Your task to perform on an android device: change the clock display to digital Image 0: 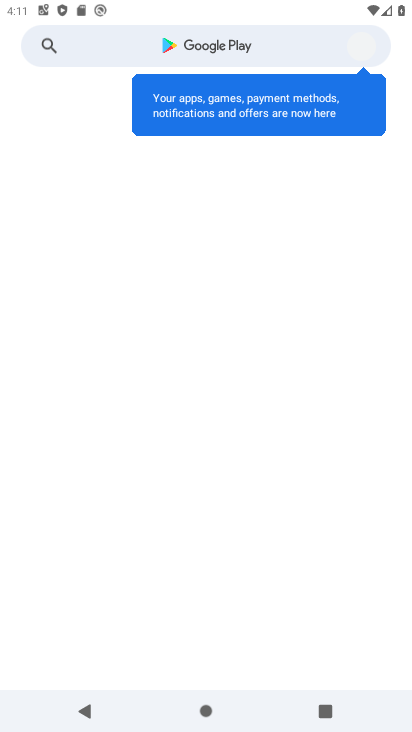
Step 0: press home button
Your task to perform on an android device: change the clock display to digital Image 1: 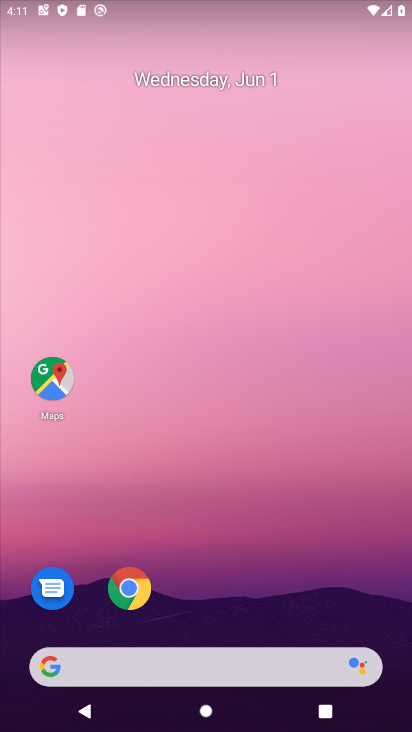
Step 1: drag from (246, 623) to (151, 214)
Your task to perform on an android device: change the clock display to digital Image 2: 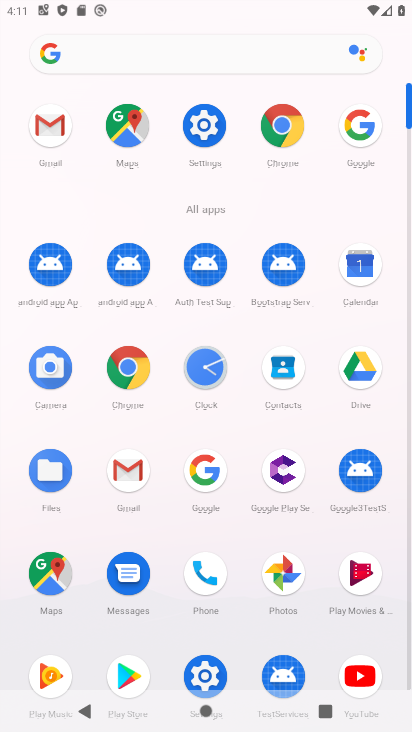
Step 2: click (199, 372)
Your task to perform on an android device: change the clock display to digital Image 3: 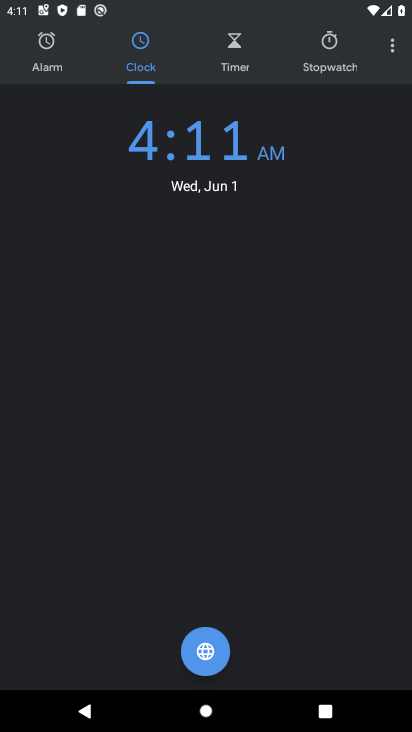
Step 3: click (387, 49)
Your task to perform on an android device: change the clock display to digital Image 4: 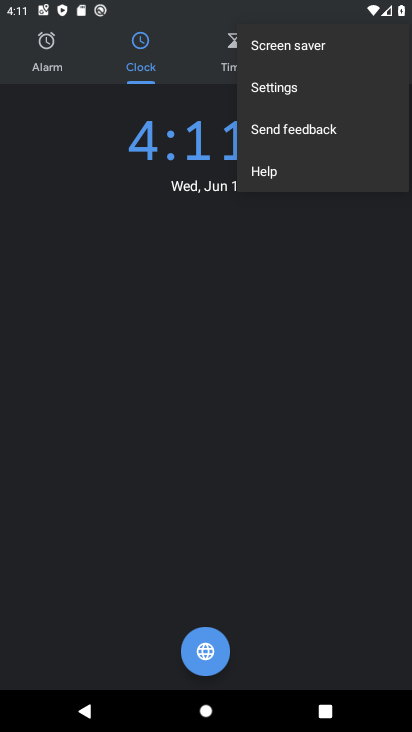
Step 4: click (333, 83)
Your task to perform on an android device: change the clock display to digital Image 5: 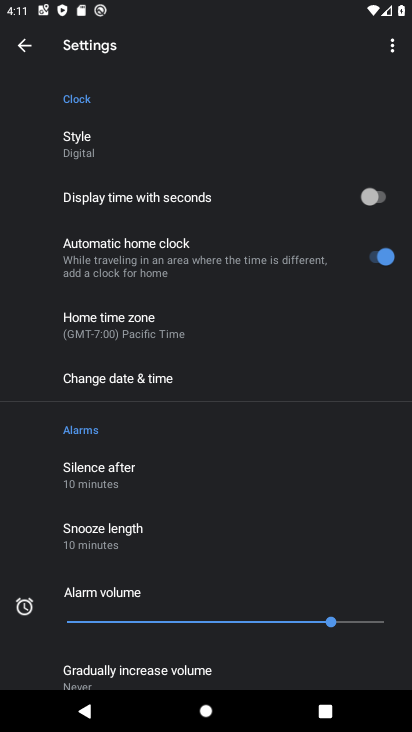
Step 5: click (102, 156)
Your task to perform on an android device: change the clock display to digital Image 6: 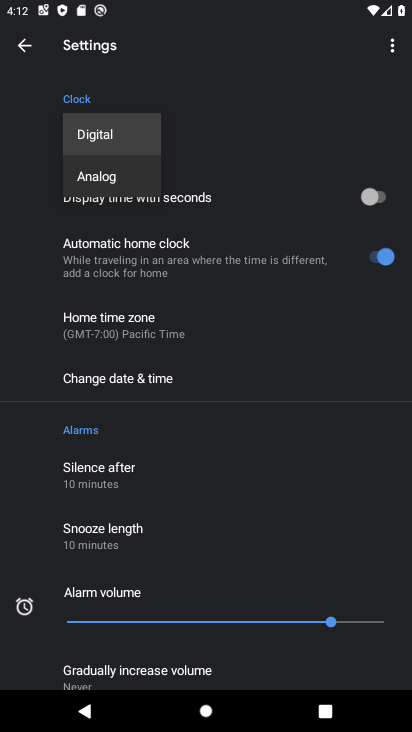
Step 6: task complete